Your task to perform on an android device: allow notifications from all sites in the chrome app Image 0: 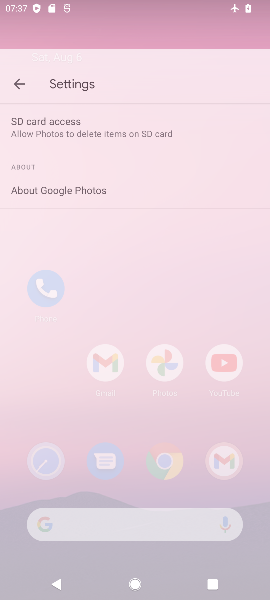
Step 0: press home button
Your task to perform on an android device: allow notifications from all sites in the chrome app Image 1: 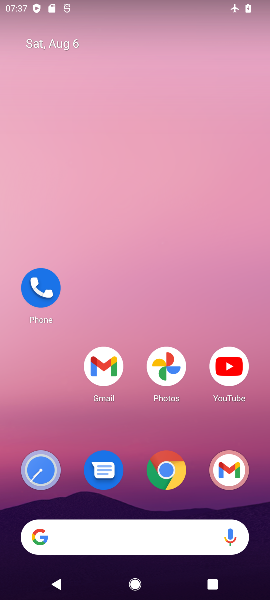
Step 1: drag from (94, 470) to (98, 35)
Your task to perform on an android device: allow notifications from all sites in the chrome app Image 2: 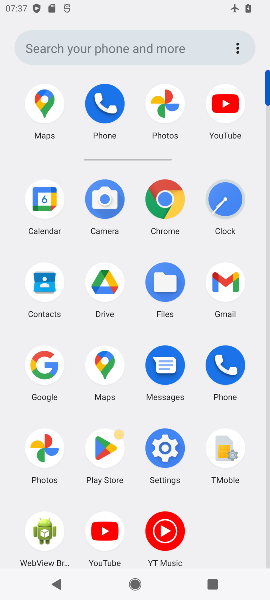
Step 2: click (155, 205)
Your task to perform on an android device: allow notifications from all sites in the chrome app Image 3: 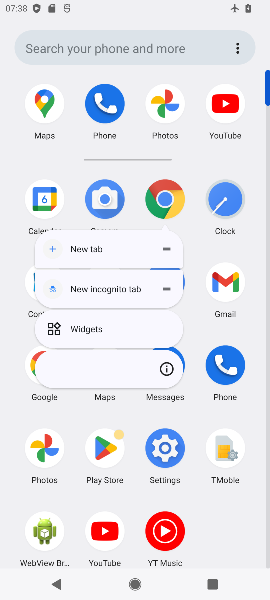
Step 3: click (167, 372)
Your task to perform on an android device: allow notifications from all sites in the chrome app Image 4: 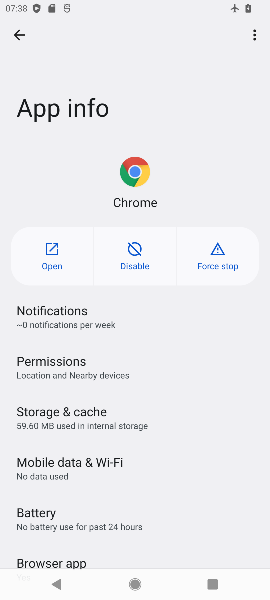
Step 4: click (58, 357)
Your task to perform on an android device: allow notifications from all sites in the chrome app Image 5: 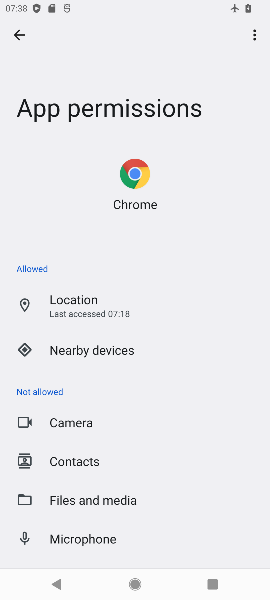
Step 5: click (73, 413)
Your task to perform on an android device: allow notifications from all sites in the chrome app Image 6: 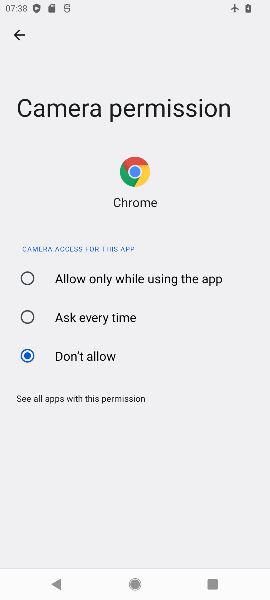
Step 6: click (89, 273)
Your task to perform on an android device: allow notifications from all sites in the chrome app Image 7: 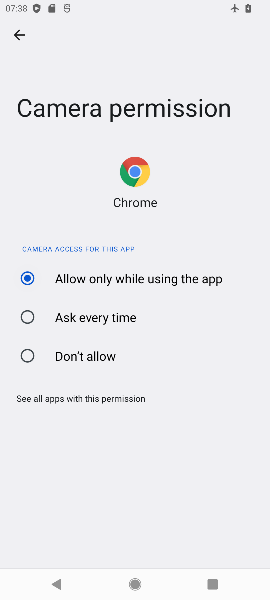
Step 7: click (20, 25)
Your task to perform on an android device: allow notifications from all sites in the chrome app Image 8: 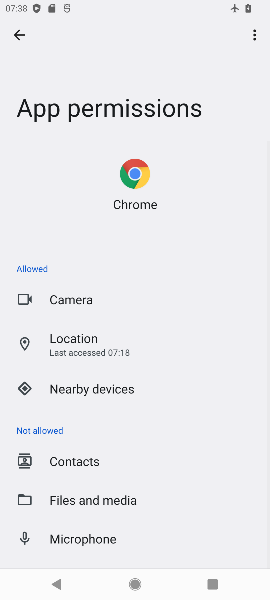
Step 8: click (70, 458)
Your task to perform on an android device: allow notifications from all sites in the chrome app Image 9: 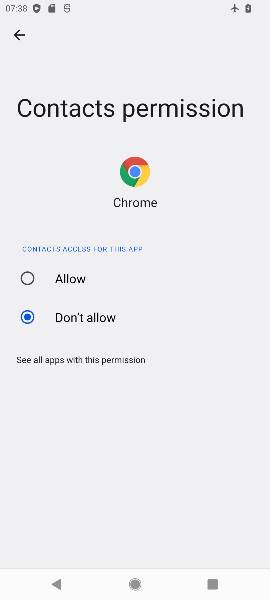
Step 9: click (59, 263)
Your task to perform on an android device: allow notifications from all sites in the chrome app Image 10: 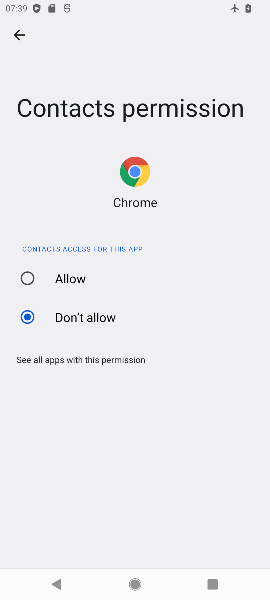
Step 10: click (57, 287)
Your task to perform on an android device: allow notifications from all sites in the chrome app Image 11: 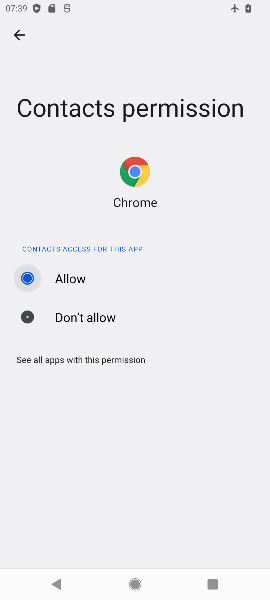
Step 11: click (19, 27)
Your task to perform on an android device: allow notifications from all sites in the chrome app Image 12: 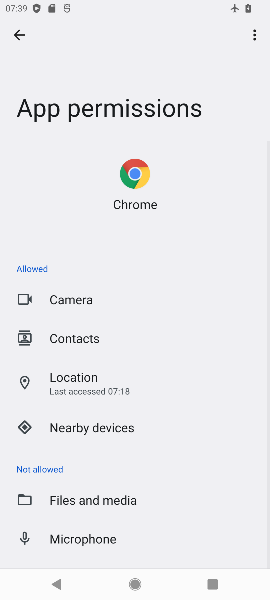
Step 12: click (66, 506)
Your task to perform on an android device: allow notifications from all sites in the chrome app Image 13: 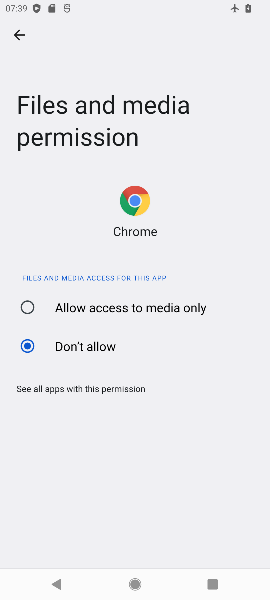
Step 13: click (46, 308)
Your task to perform on an android device: allow notifications from all sites in the chrome app Image 14: 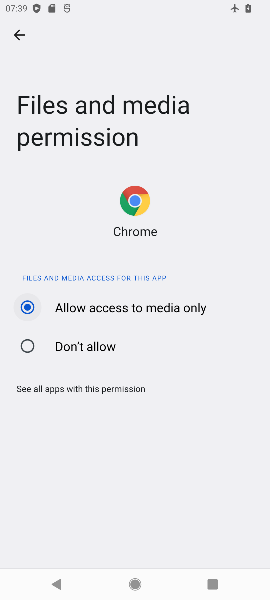
Step 14: click (11, 45)
Your task to perform on an android device: allow notifications from all sites in the chrome app Image 15: 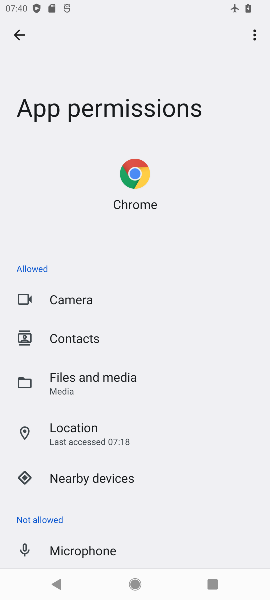
Step 15: click (82, 549)
Your task to perform on an android device: allow notifications from all sites in the chrome app Image 16: 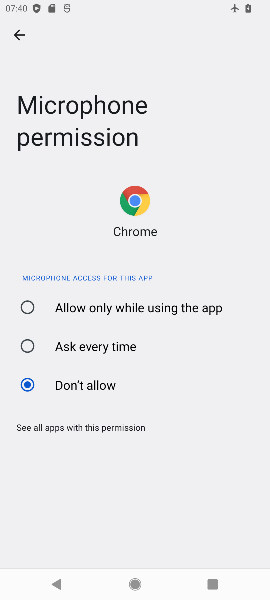
Step 16: click (43, 314)
Your task to perform on an android device: allow notifications from all sites in the chrome app Image 17: 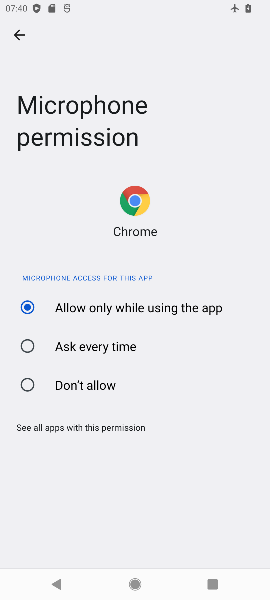
Step 17: click (9, 32)
Your task to perform on an android device: allow notifications from all sites in the chrome app Image 18: 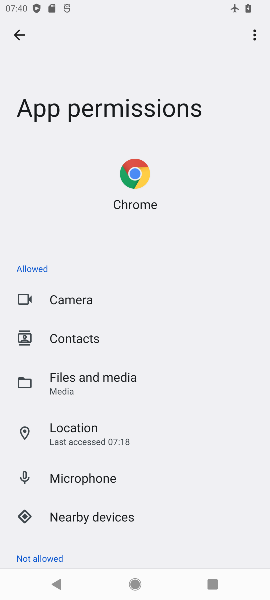
Step 18: task complete